Your task to perform on an android device: move a message to another label in the gmail app Image 0: 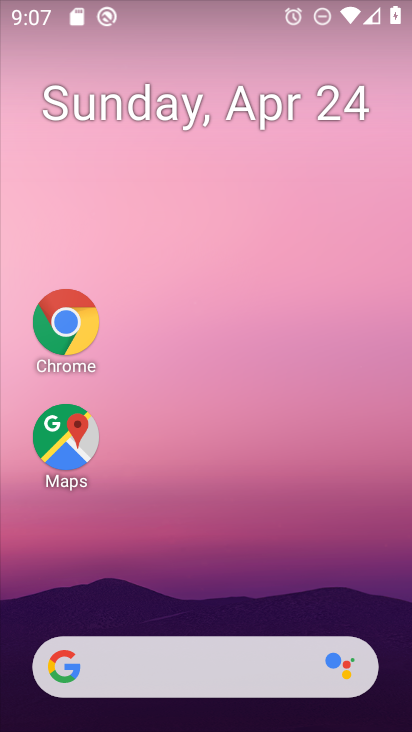
Step 0: drag from (243, 532) to (242, 55)
Your task to perform on an android device: move a message to another label in the gmail app Image 1: 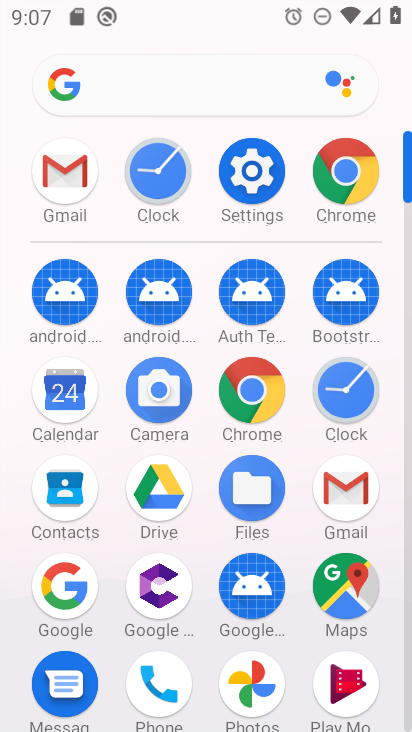
Step 1: click (70, 191)
Your task to perform on an android device: move a message to another label in the gmail app Image 2: 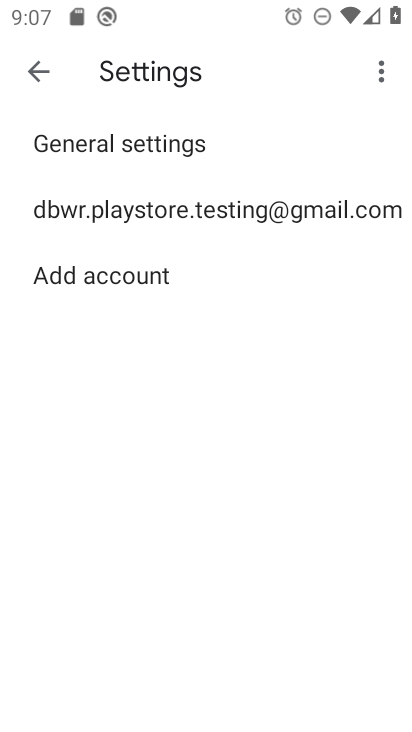
Step 2: click (35, 70)
Your task to perform on an android device: move a message to another label in the gmail app Image 3: 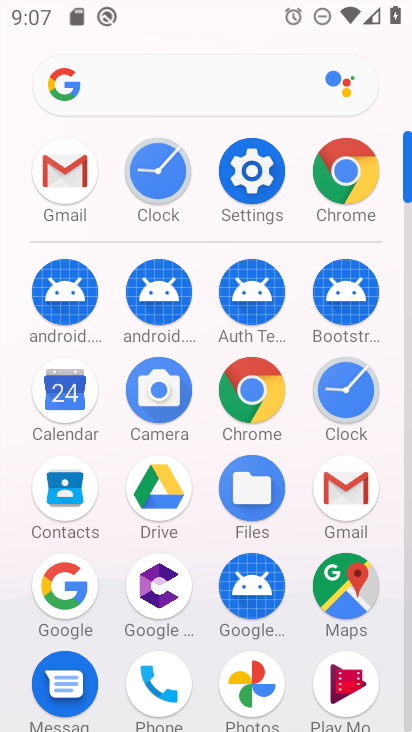
Step 3: click (59, 179)
Your task to perform on an android device: move a message to another label in the gmail app Image 4: 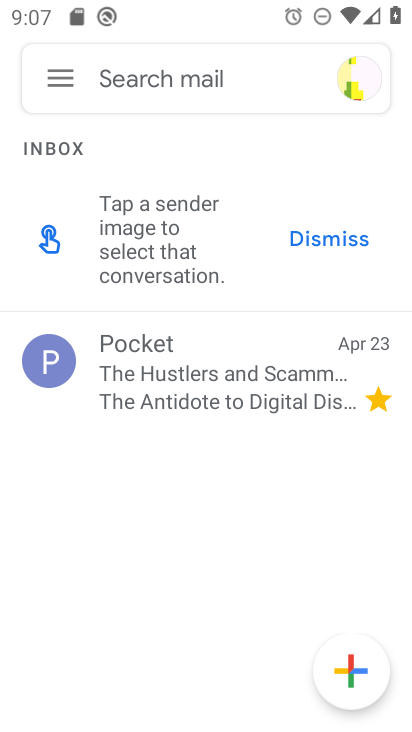
Step 4: click (60, 80)
Your task to perform on an android device: move a message to another label in the gmail app Image 5: 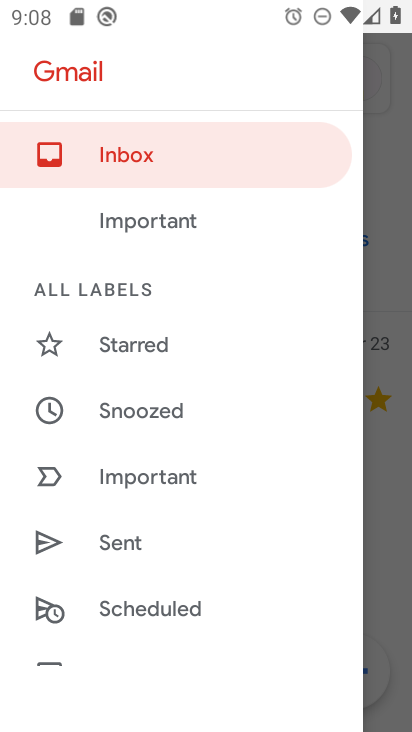
Step 5: drag from (183, 560) to (177, 201)
Your task to perform on an android device: move a message to another label in the gmail app Image 6: 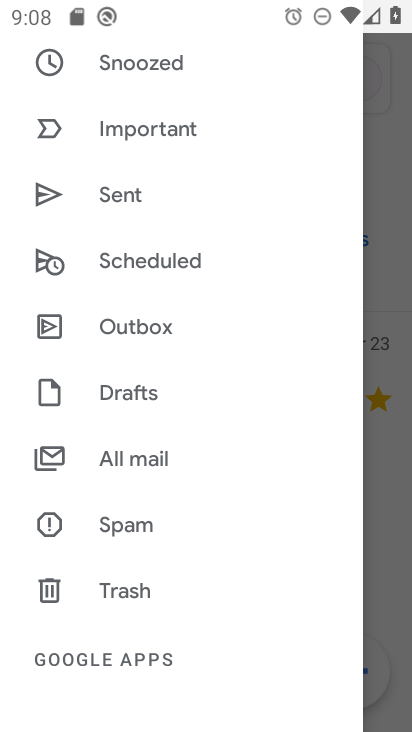
Step 6: click (147, 456)
Your task to perform on an android device: move a message to another label in the gmail app Image 7: 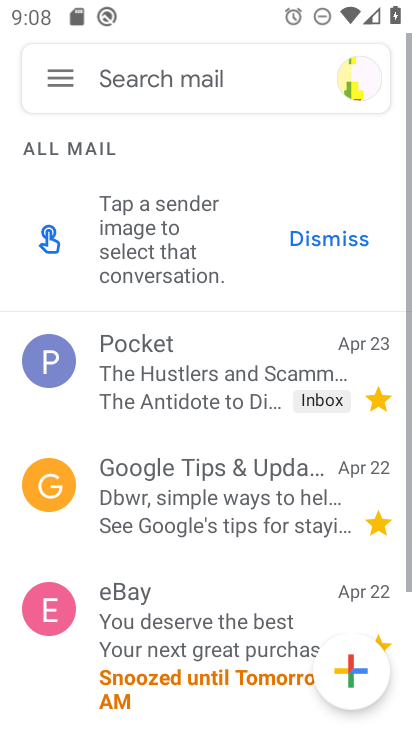
Step 7: click (219, 370)
Your task to perform on an android device: move a message to another label in the gmail app Image 8: 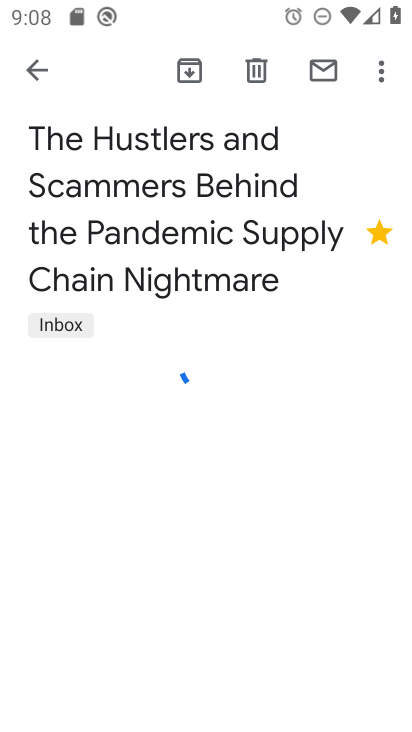
Step 8: click (378, 69)
Your task to perform on an android device: move a message to another label in the gmail app Image 9: 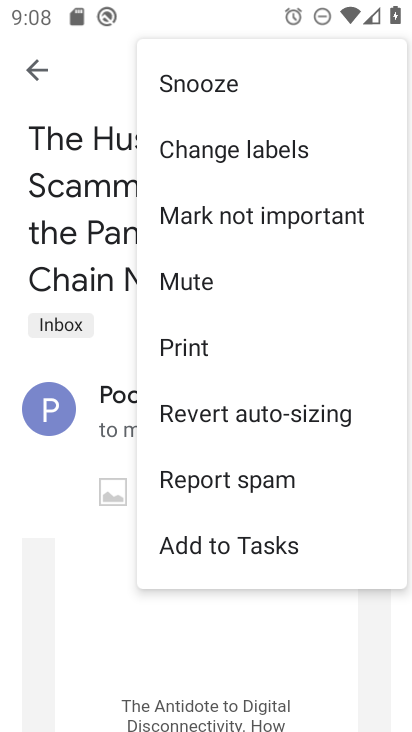
Step 9: click (249, 149)
Your task to perform on an android device: move a message to another label in the gmail app Image 10: 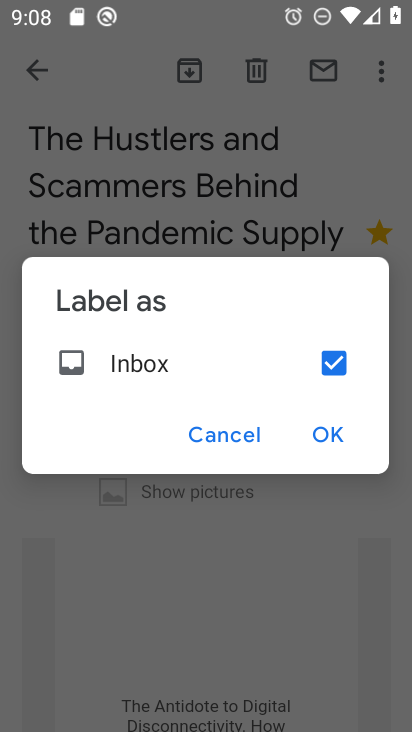
Step 10: click (327, 432)
Your task to perform on an android device: move a message to another label in the gmail app Image 11: 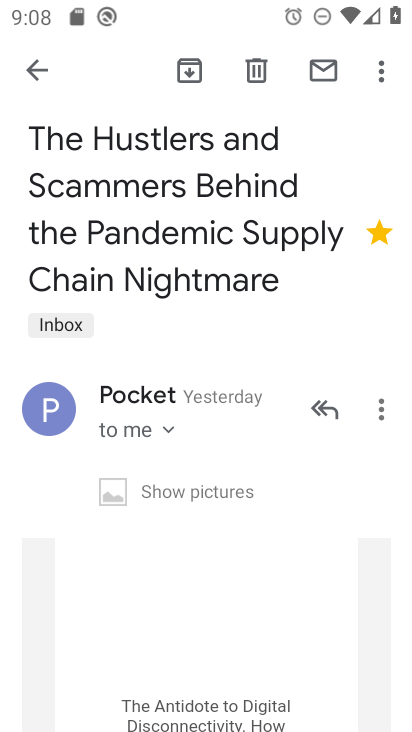
Step 11: task complete